Your task to perform on an android device: Toggle the flashlight Image 0: 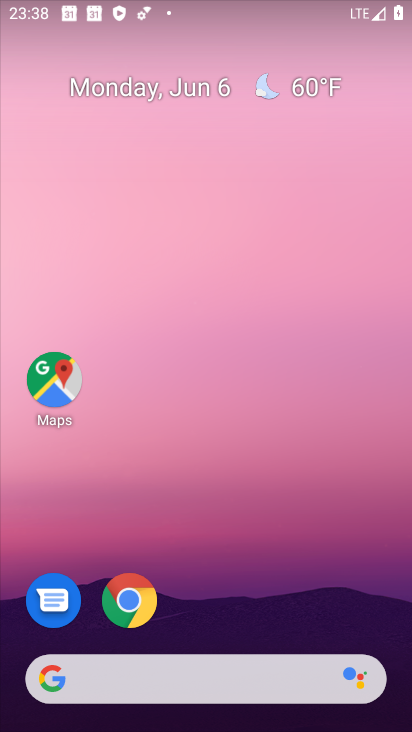
Step 0: drag from (205, 668) to (177, 78)
Your task to perform on an android device: Toggle the flashlight Image 1: 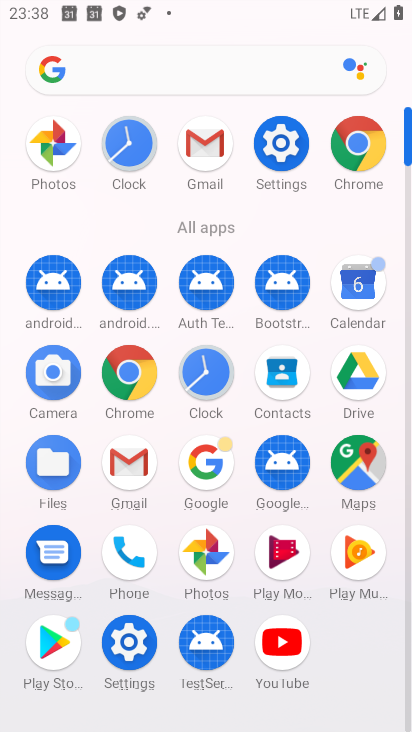
Step 1: click (290, 144)
Your task to perform on an android device: Toggle the flashlight Image 2: 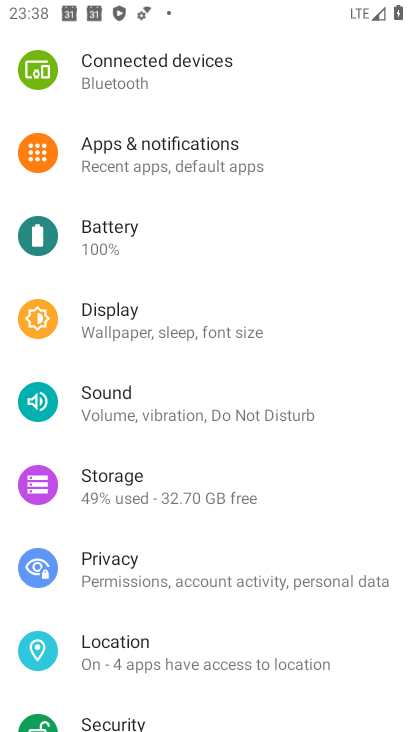
Step 2: task complete